Your task to perform on an android device: Search for vegetarian restaurants on Maps Image 0: 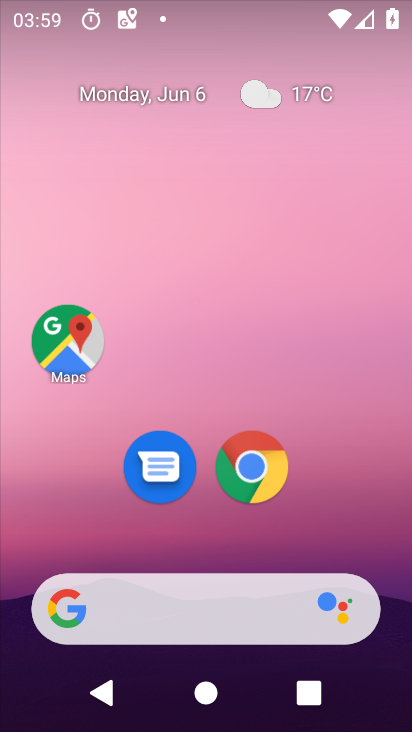
Step 0: press home button
Your task to perform on an android device: Search for vegetarian restaurants on Maps Image 1: 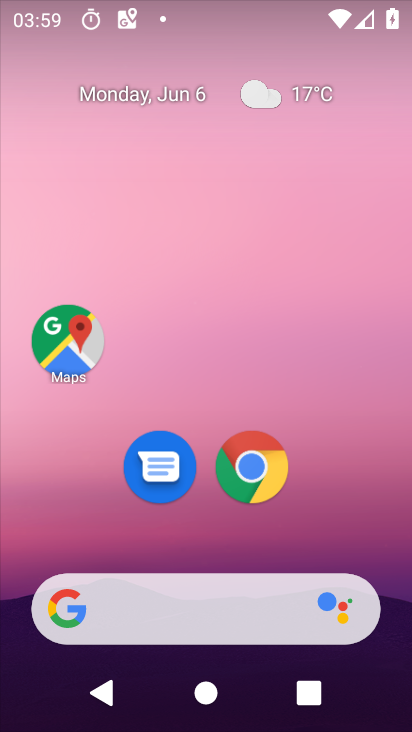
Step 1: click (69, 333)
Your task to perform on an android device: Search for vegetarian restaurants on Maps Image 2: 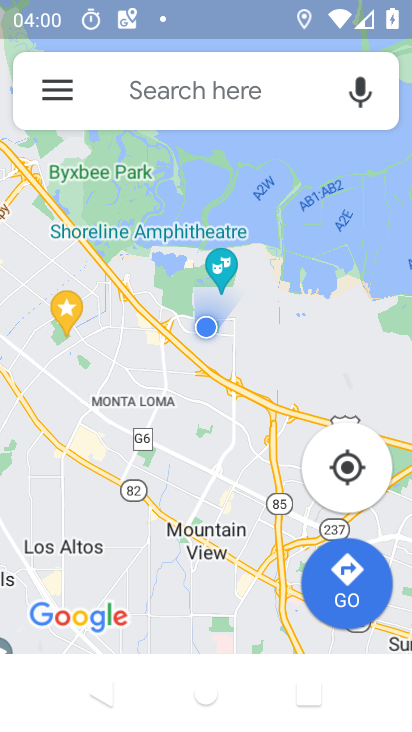
Step 2: click (149, 92)
Your task to perform on an android device: Search for vegetarian restaurants on Maps Image 3: 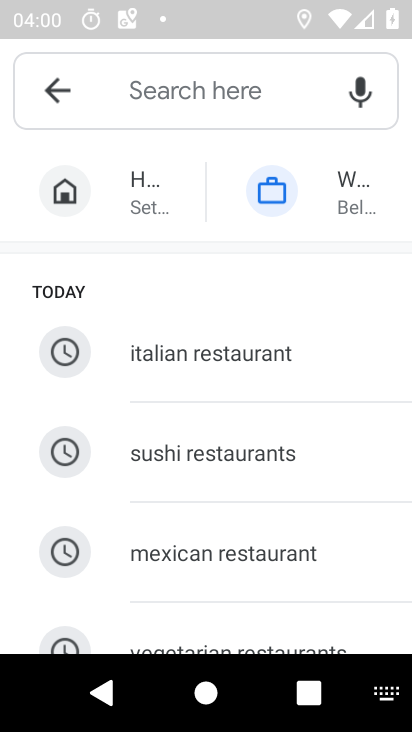
Step 3: drag from (215, 610) to (244, 440)
Your task to perform on an android device: Search for vegetarian restaurants on Maps Image 4: 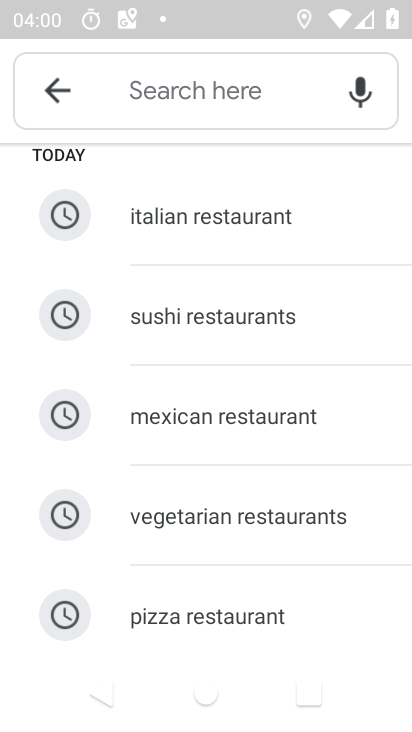
Step 4: click (219, 535)
Your task to perform on an android device: Search for vegetarian restaurants on Maps Image 5: 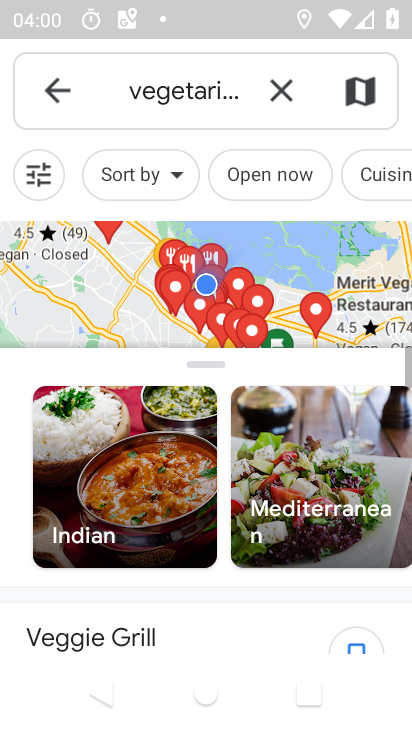
Step 5: drag from (226, 607) to (252, 403)
Your task to perform on an android device: Search for vegetarian restaurants on Maps Image 6: 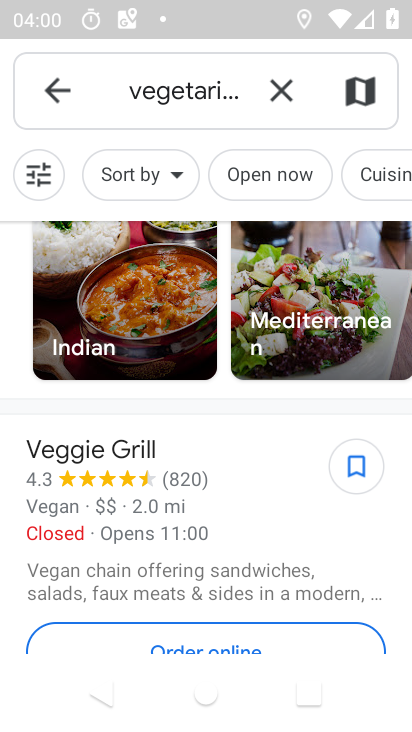
Step 6: click (262, 337)
Your task to perform on an android device: Search for vegetarian restaurants on Maps Image 7: 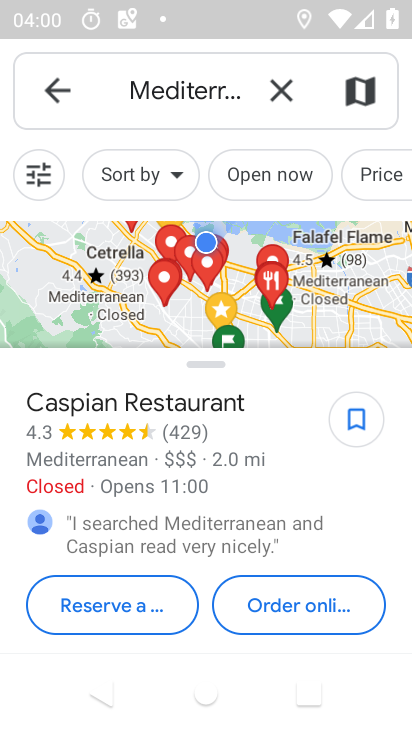
Step 7: click (283, 93)
Your task to perform on an android device: Search for vegetarian restaurants on Maps Image 8: 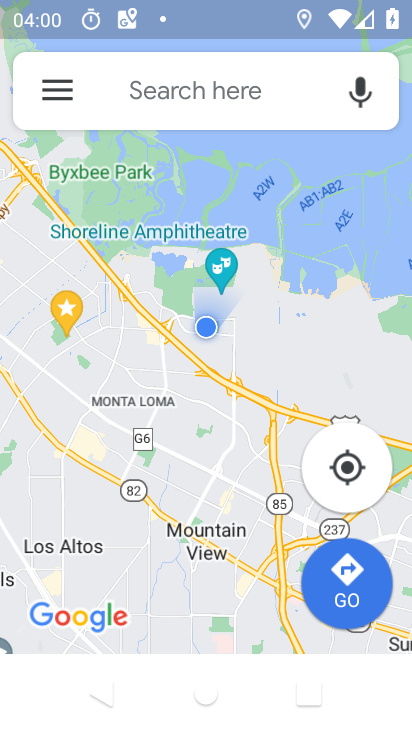
Step 8: click (174, 88)
Your task to perform on an android device: Search for vegetarian restaurants on Maps Image 9: 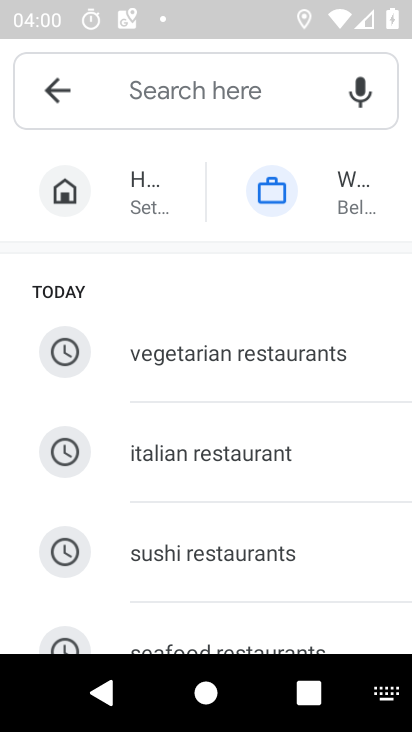
Step 9: click (228, 361)
Your task to perform on an android device: Search for vegetarian restaurants on Maps Image 10: 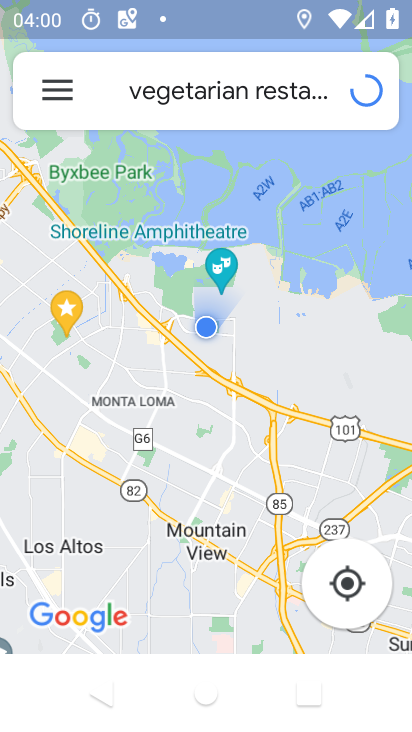
Step 10: task complete